Your task to perform on an android device: move a message to another label in the gmail app Image 0: 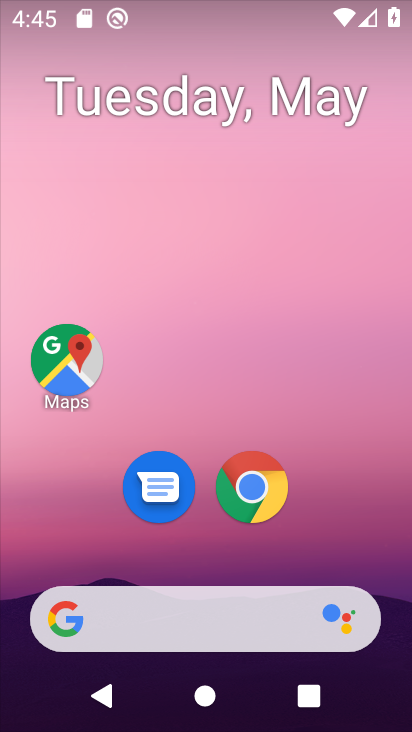
Step 0: drag from (329, 535) to (332, 149)
Your task to perform on an android device: move a message to another label in the gmail app Image 1: 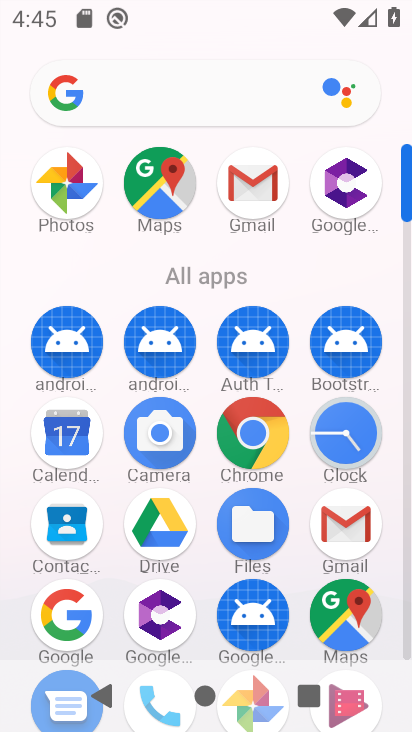
Step 1: click (347, 542)
Your task to perform on an android device: move a message to another label in the gmail app Image 2: 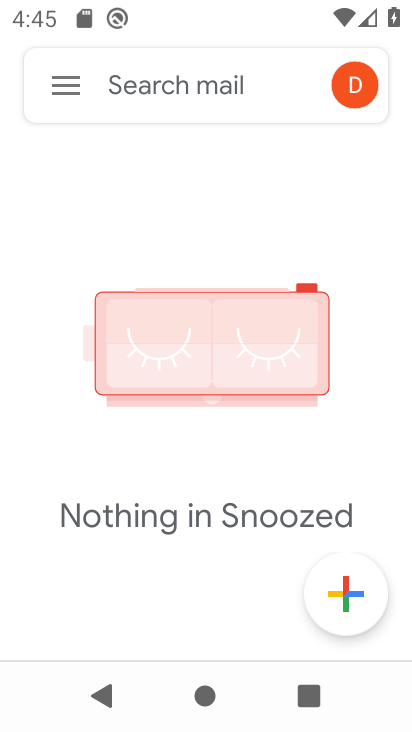
Step 2: click (61, 85)
Your task to perform on an android device: move a message to another label in the gmail app Image 3: 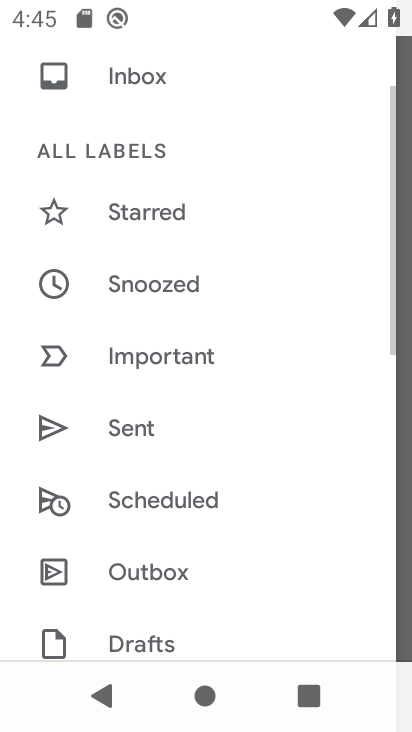
Step 3: drag from (165, 549) to (172, 379)
Your task to perform on an android device: move a message to another label in the gmail app Image 4: 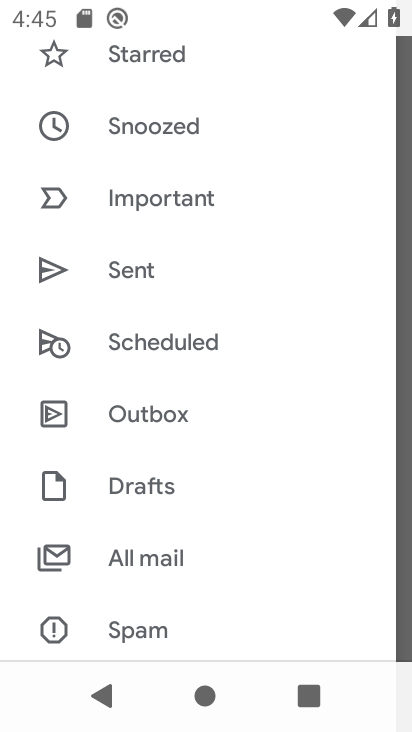
Step 4: click (193, 572)
Your task to perform on an android device: move a message to another label in the gmail app Image 5: 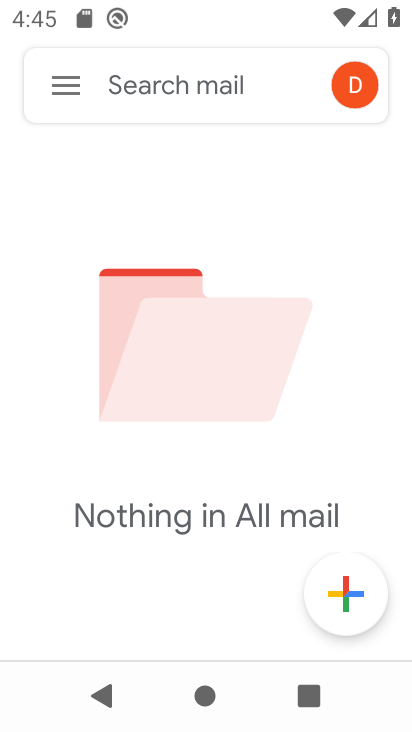
Step 5: task complete